Your task to perform on an android device: Show me the alarms in the clock app Image 0: 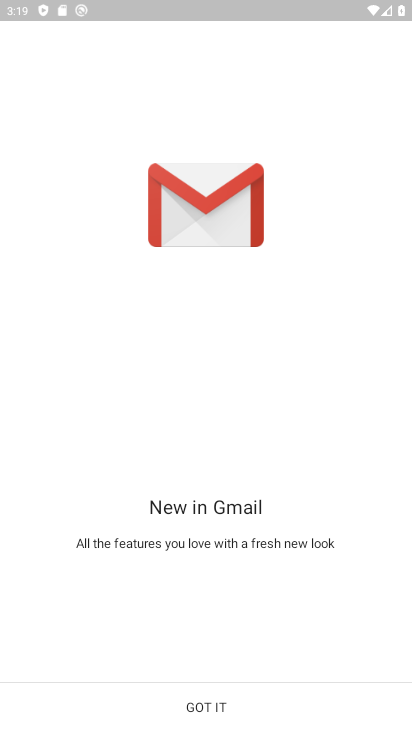
Step 0: drag from (308, 634) to (265, 354)
Your task to perform on an android device: Show me the alarms in the clock app Image 1: 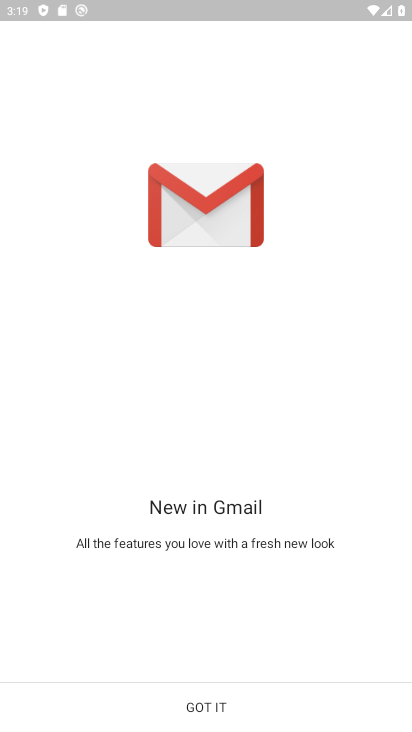
Step 1: click (260, 715)
Your task to perform on an android device: Show me the alarms in the clock app Image 2: 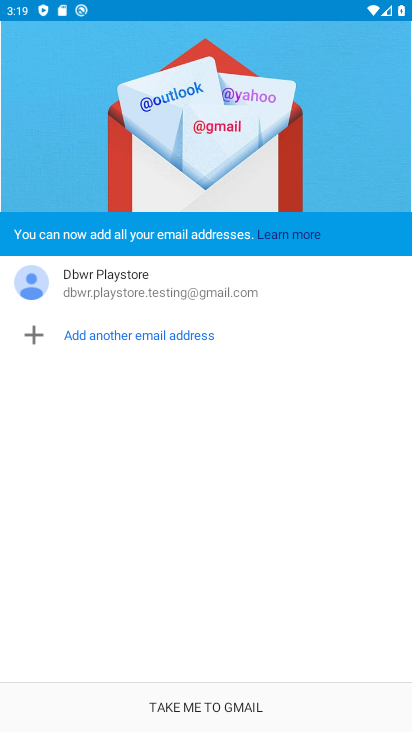
Step 2: click (219, 713)
Your task to perform on an android device: Show me the alarms in the clock app Image 3: 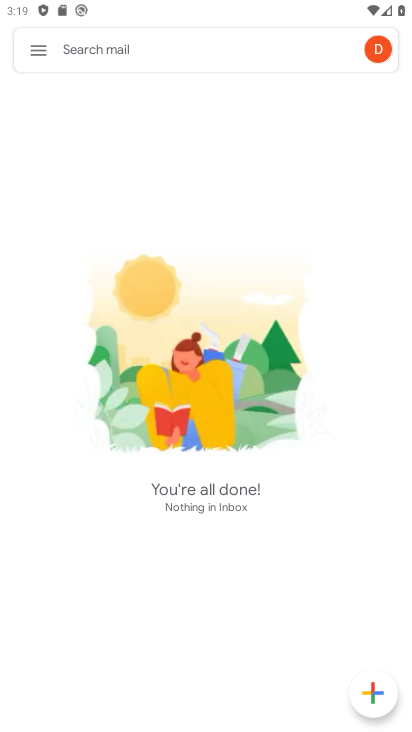
Step 3: press home button
Your task to perform on an android device: Show me the alarms in the clock app Image 4: 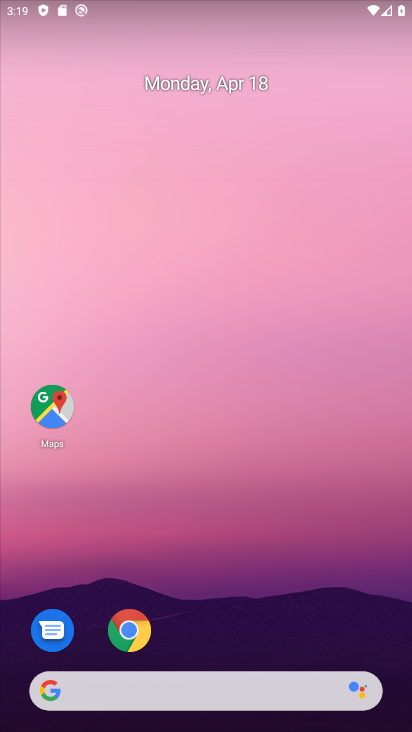
Step 4: drag from (308, 578) to (259, 91)
Your task to perform on an android device: Show me the alarms in the clock app Image 5: 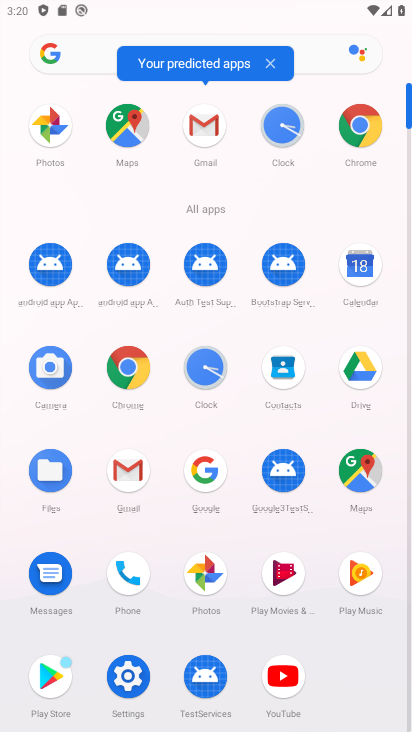
Step 5: click (283, 149)
Your task to perform on an android device: Show me the alarms in the clock app Image 6: 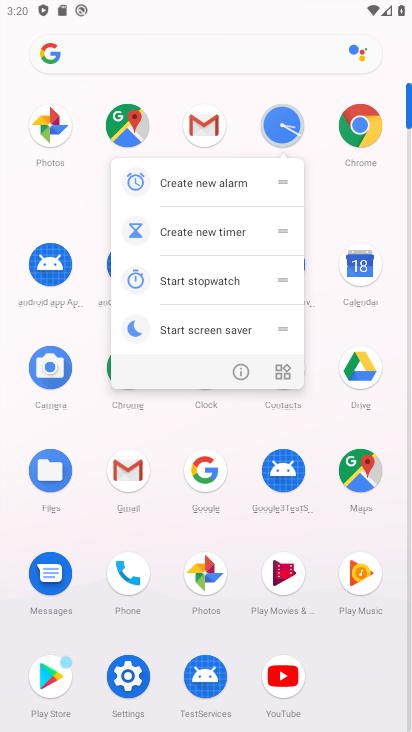
Step 6: click (278, 135)
Your task to perform on an android device: Show me the alarms in the clock app Image 7: 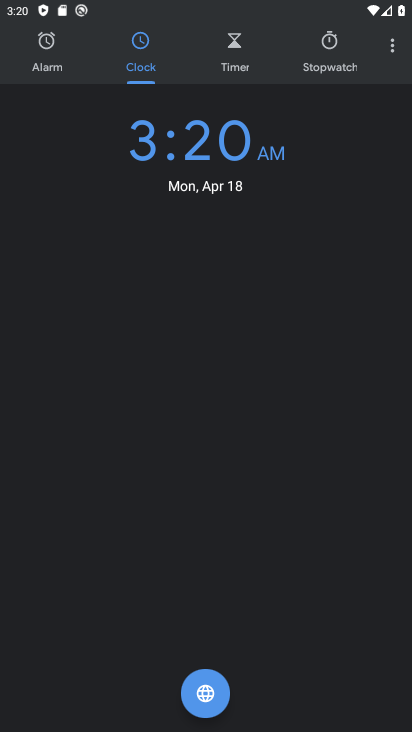
Step 7: click (52, 38)
Your task to perform on an android device: Show me the alarms in the clock app Image 8: 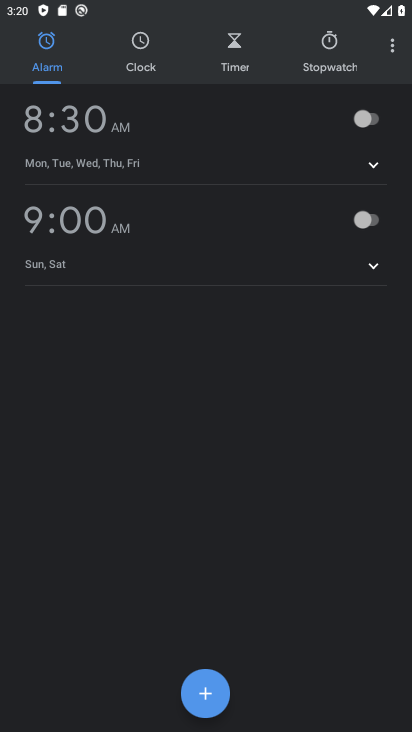
Step 8: task complete